Your task to perform on an android device: Go to Amazon Image 0: 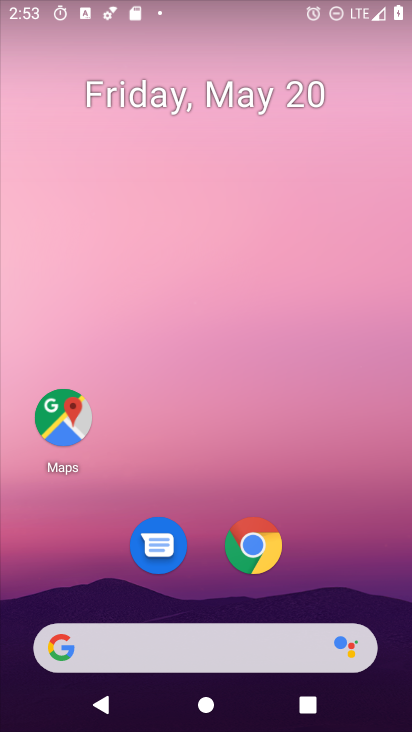
Step 0: drag from (296, 624) to (287, 1)
Your task to perform on an android device: Go to Amazon Image 1: 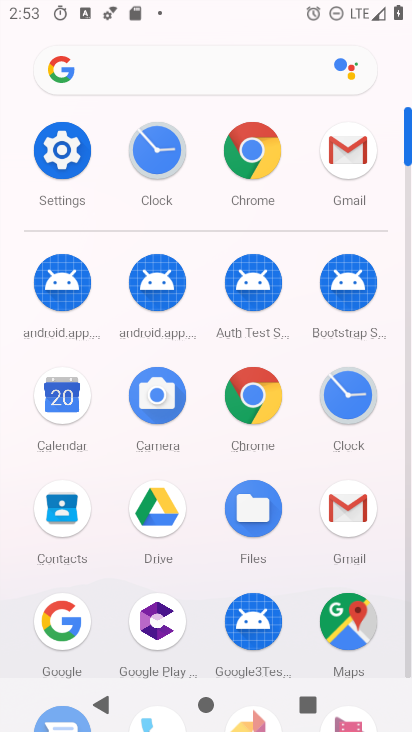
Step 1: click (247, 394)
Your task to perform on an android device: Go to Amazon Image 2: 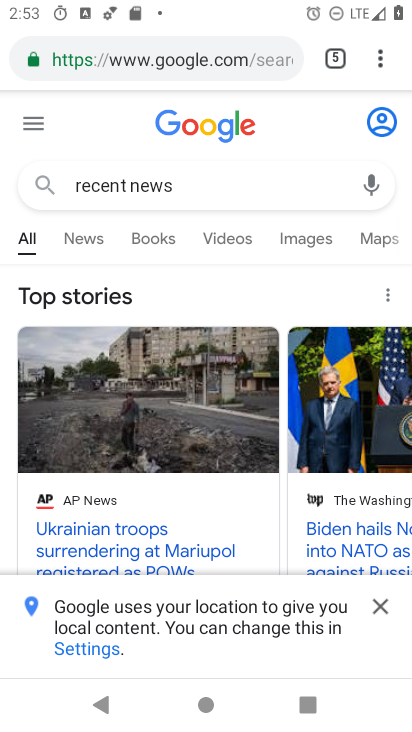
Step 2: click (382, 53)
Your task to perform on an android device: Go to Amazon Image 3: 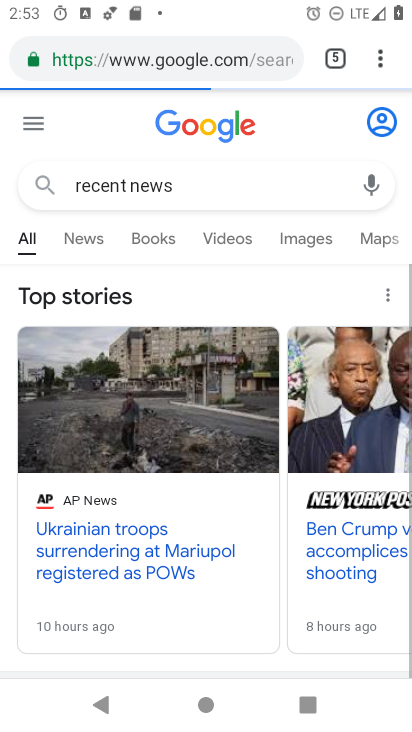
Step 3: drag from (377, 58) to (213, 124)
Your task to perform on an android device: Go to Amazon Image 4: 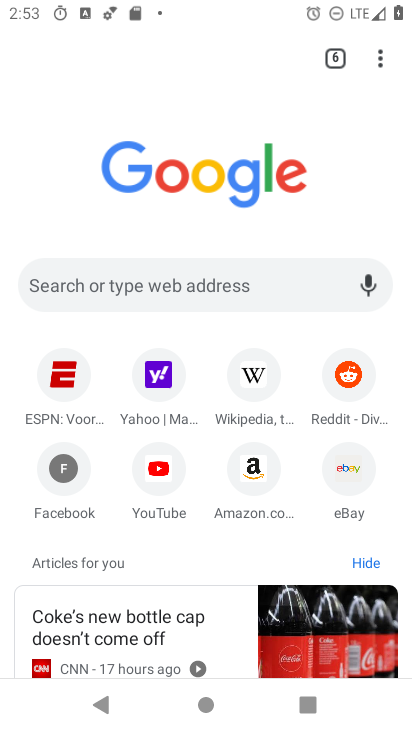
Step 4: click (251, 469)
Your task to perform on an android device: Go to Amazon Image 5: 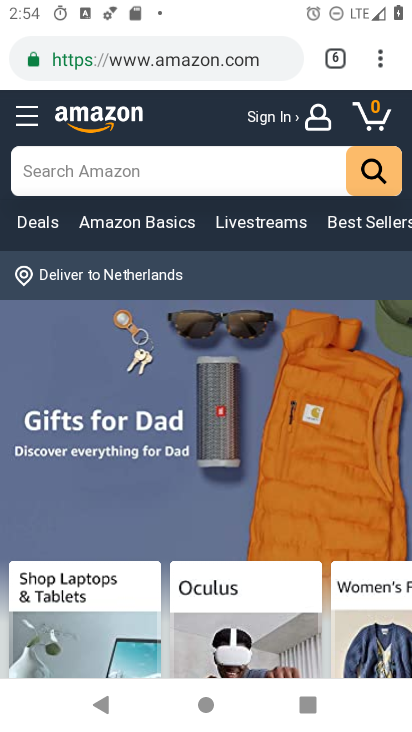
Step 5: task complete